Your task to perform on an android device: turn on location history Image 0: 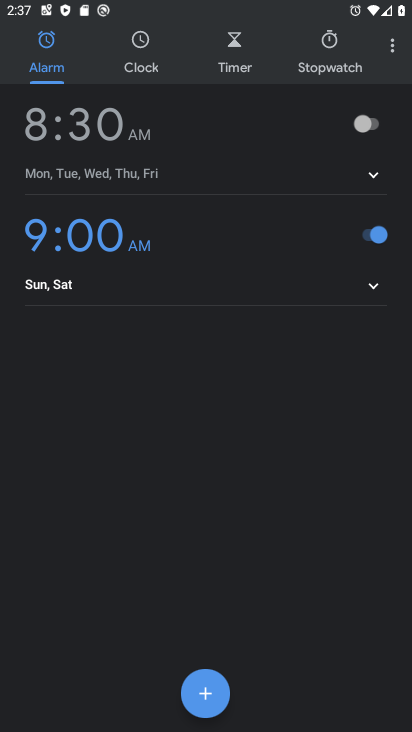
Step 0: press home button
Your task to perform on an android device: turn on location history Image 1: 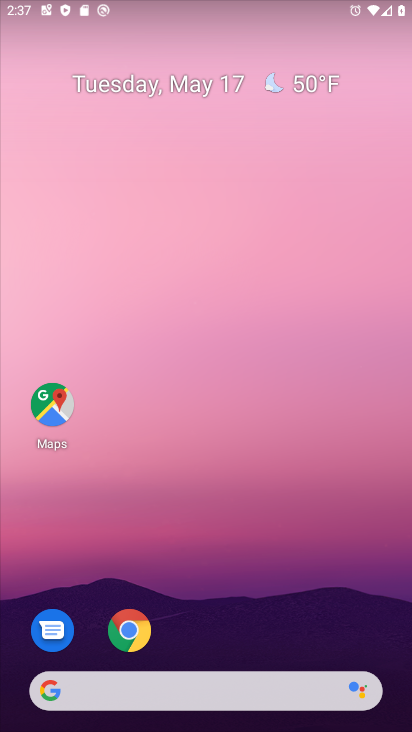
Step 1: drag from (151, 592) to (183, 337)
Your task to perform on an android device: turn on location history Image 2: 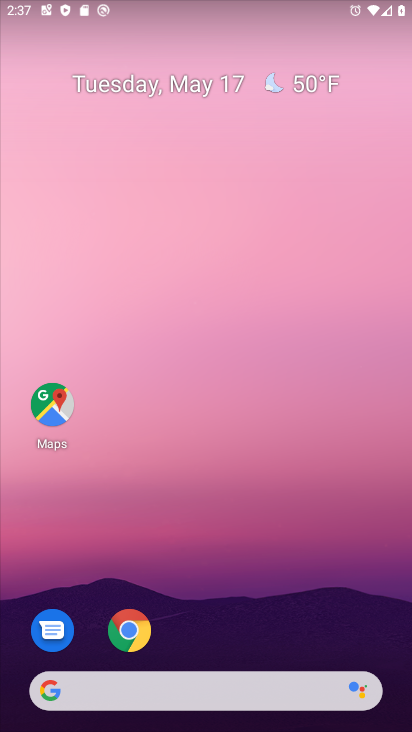
Step 2: drag from (262, 650) to (222, 296)
Your task to perform on an android device: turn on location history Image 3: 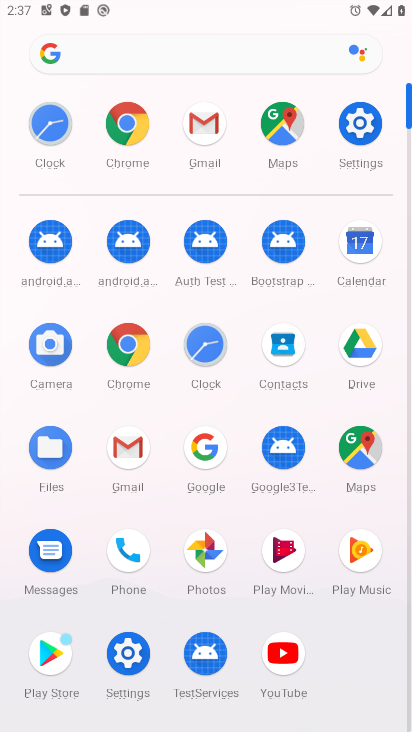
Step 3: click (357, 123)
Your task to perform on an android device: turn on location history Image 4: 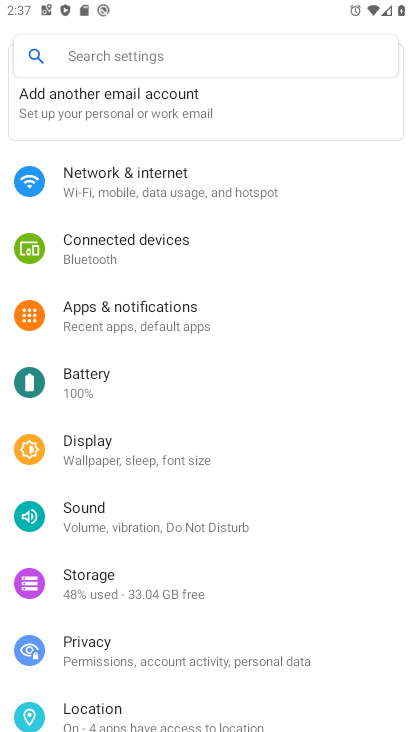
Step 4: click (104, 716)
Your task to perform on an android device: turn on location history Image 5: 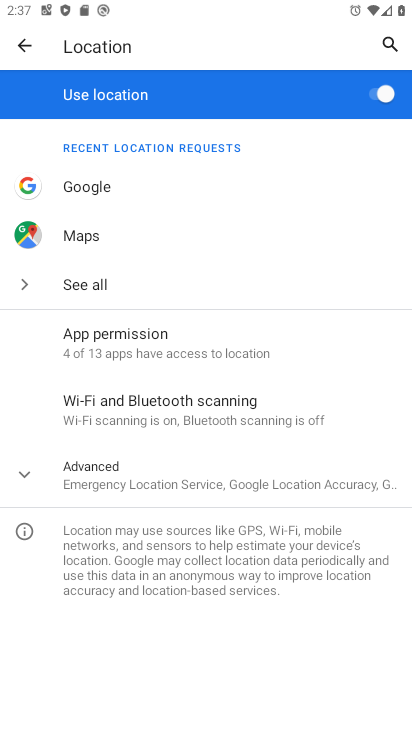
Step 5: click (133, 479)
Your task to perform on an android device: turn on location history Image 6: 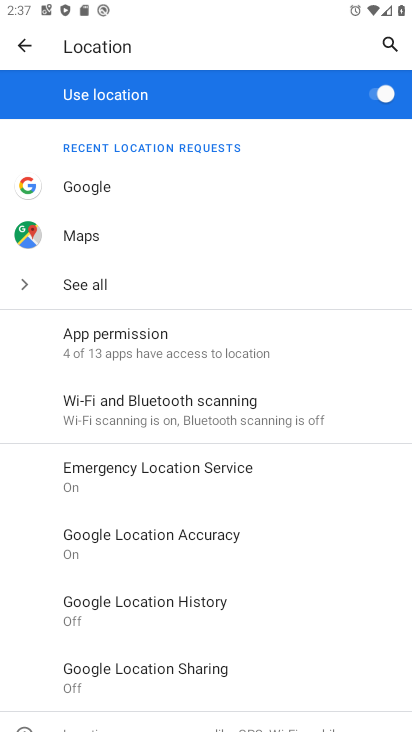
Step 6: click (176, 590)
Your task to perform on an android device: turn on location history Image 7: 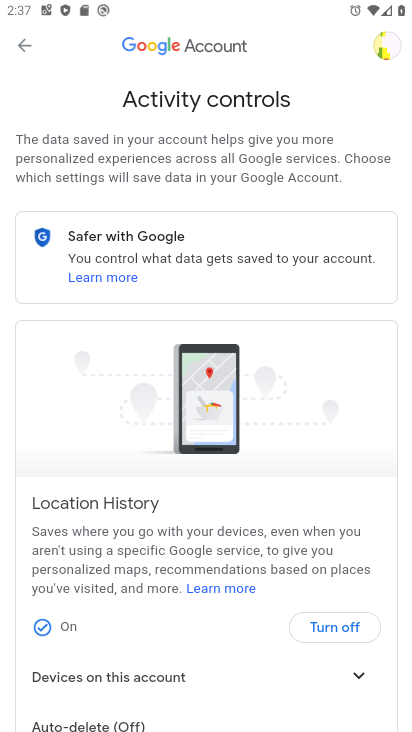
Step 7: task complete